Your task to perform on an android device: What's on my calendar tomorrow? Image 0: 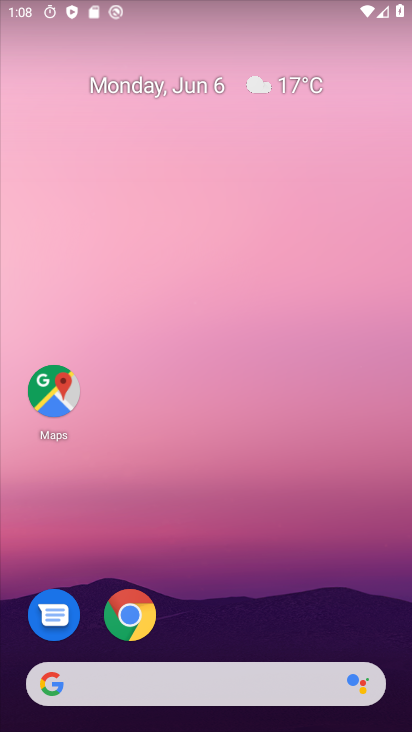
Step 0: drag from (195, 580) to (202, 162)
Your task to perform on an android device: What's on my calendar tomorrow? Image 1: 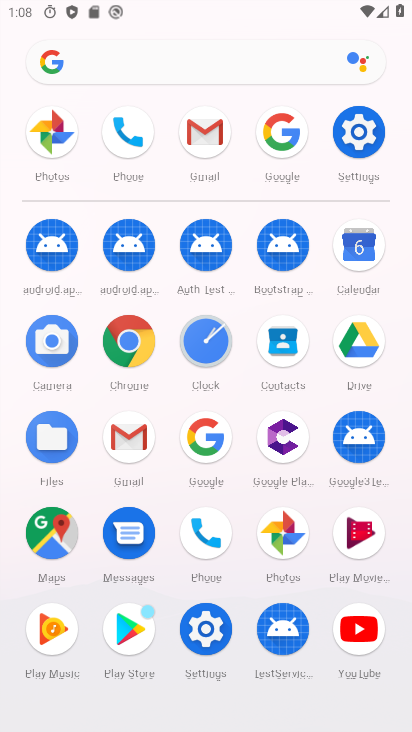
Step 1: click (354, 255)
Your task to perform on an android device: What's on my calendar tomorrow? Image 2: 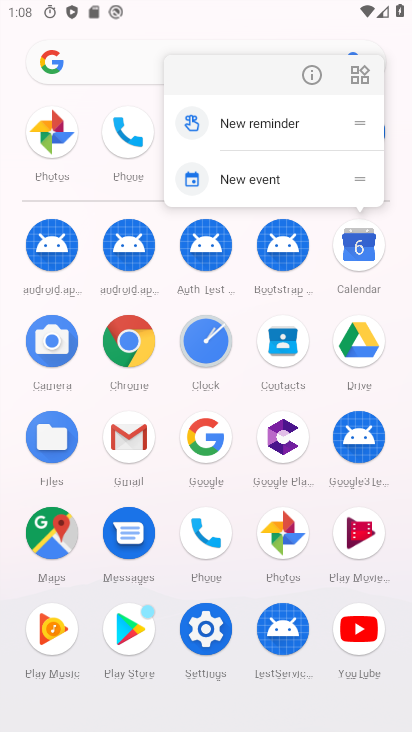
Step 2: click (305, 76)
Your task to perform on an android device: What's on my calendar tomorrow? Image 3: 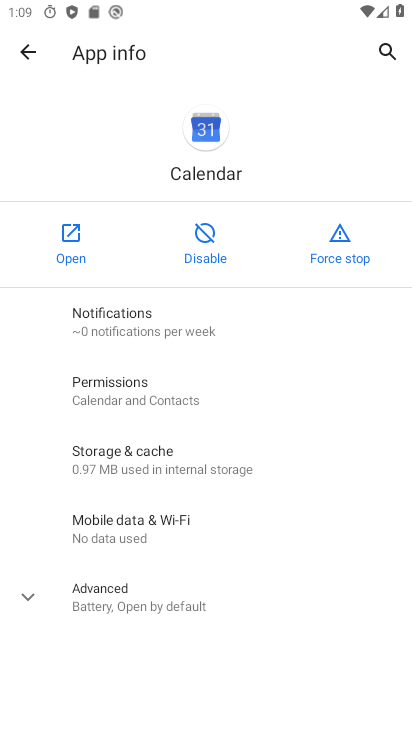
Step 3: click (74, 250)
Your task to perform on an android device: What's on my calendar tomorrow? Image 4: 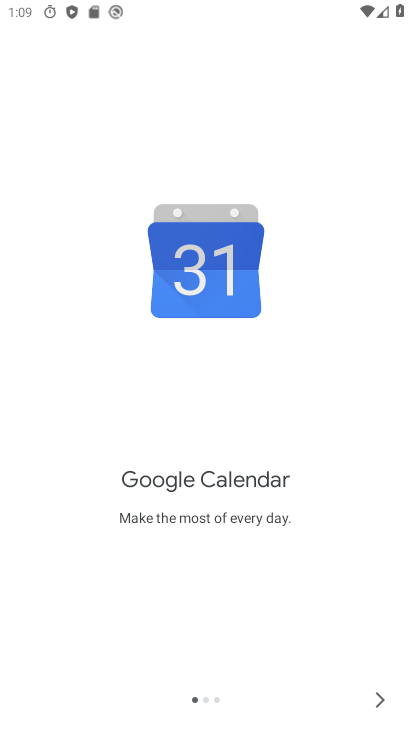
Step 4: click (376, 692)
Your task to perform on an android device: What's on my calendar tomorrow? Image 5: 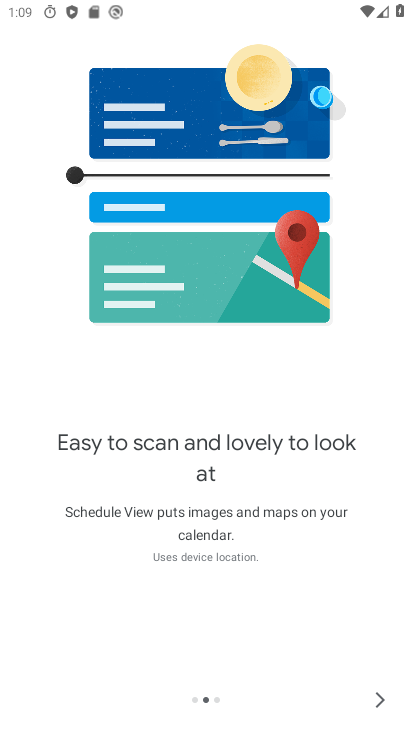
Step 5: click (363, 698)
Your task to perform on an android device: What's on my calendar tomorrow? Image 6: 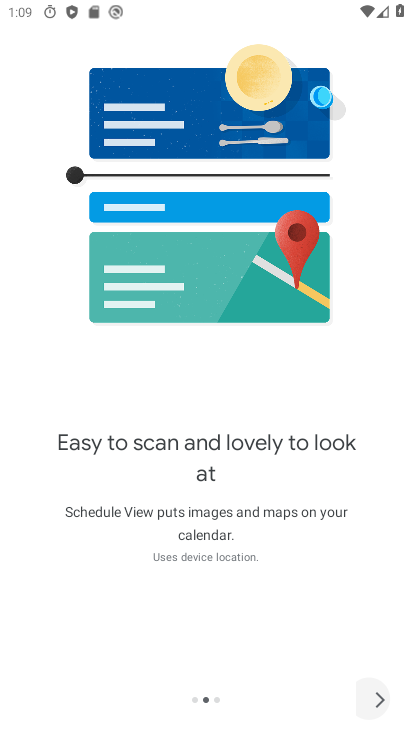
Step 6: click (364, 696)
Your task to perform on an android device: What's on my calendar tomorrow? Image 7: 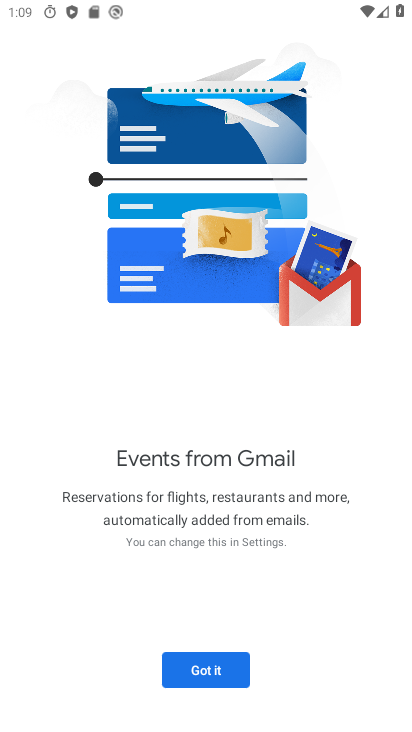
Step 7: click (216, 689)
Your task to perform on an android device: What's on my calendar tomorrow? Image 8: 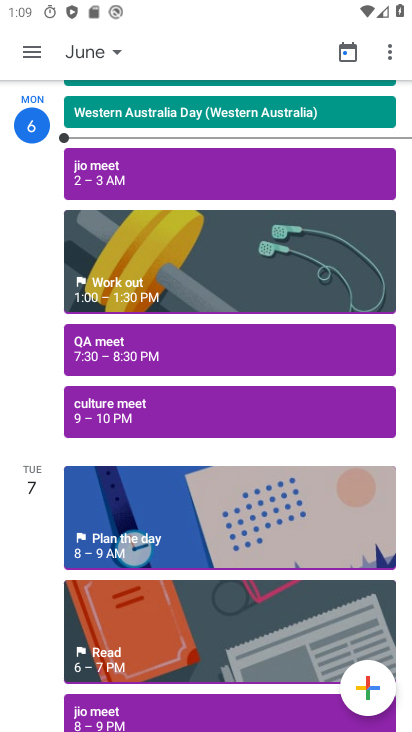
Step 8: click (97, 53)
Your task to perform on an android device: What's on my calendar tomorrow? Image 9: 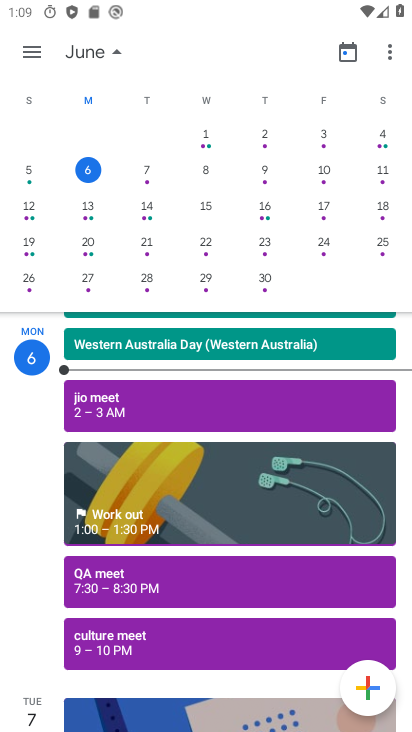
Step 9: click (148, 166)
Your task to perform on an android device: What's on my calendar tomorrow? Image 10: 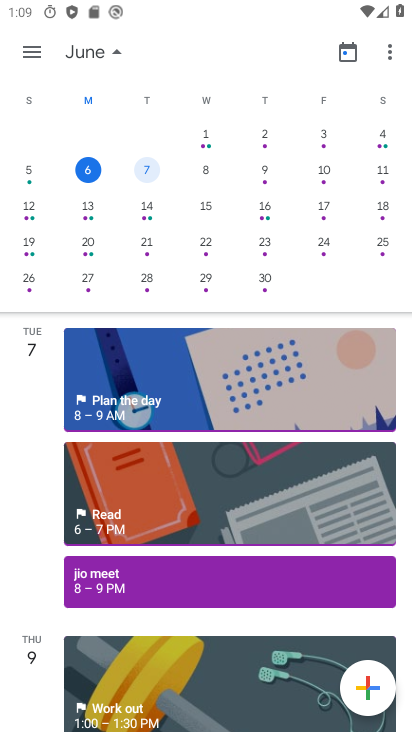
Step 10: task complete